Your task to perform on an android device: Toggle the flashlight Image 0: 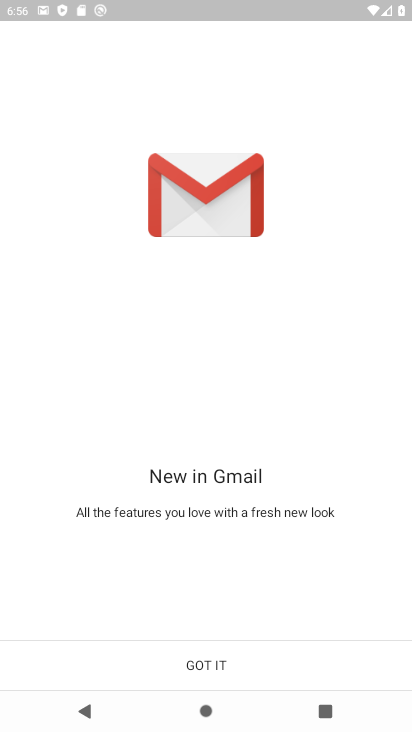
Step 0: press back button
Your task to perform on an android device: Toggle the flashlight Image 1: 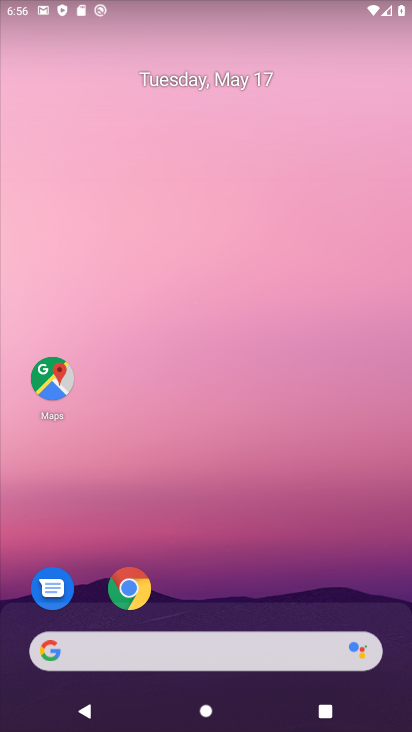
Step 1: drag from (256, 615) to (184, 274)
Your task to perform on an android device: Toggle the flashlight Image 2: 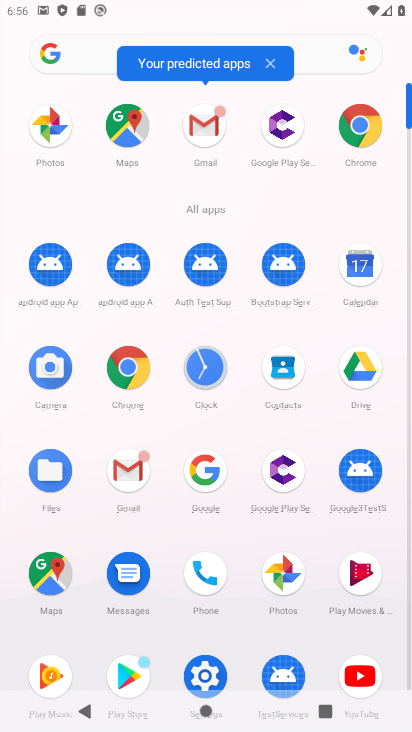
Step 2: drag from (246, 635) to (243, 434)
Your task to perform on an android device: Toggle the flashlight Image 3: 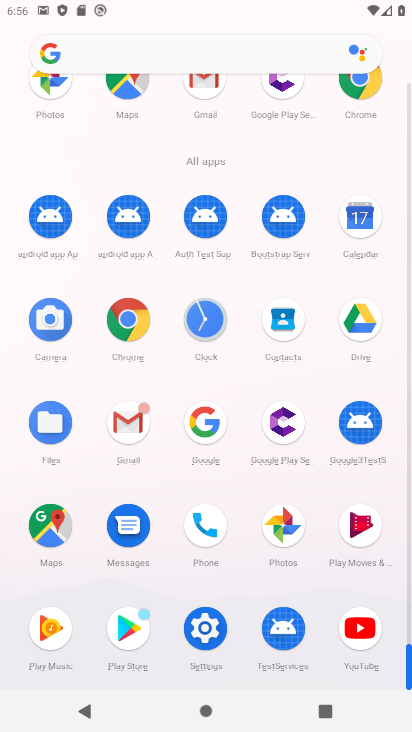
Step 3: click (208, 626)
Your task to perform on an android device: Toggle the flashlight Image 4: 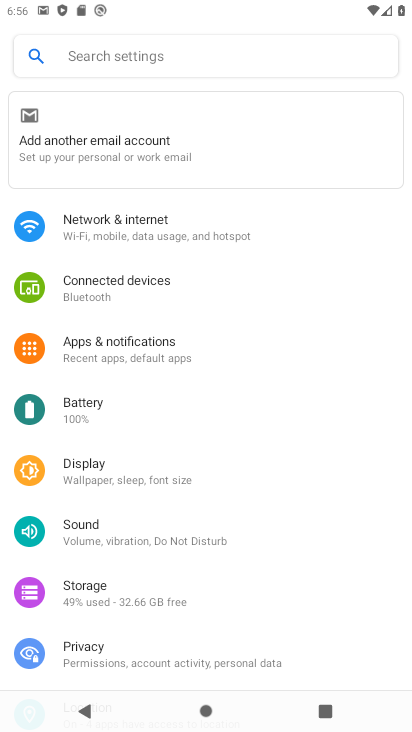
Step 4: drag from (111, 447) to (138, 385)
Your task to perform on an android device: Toggle the flashlight Image 5: 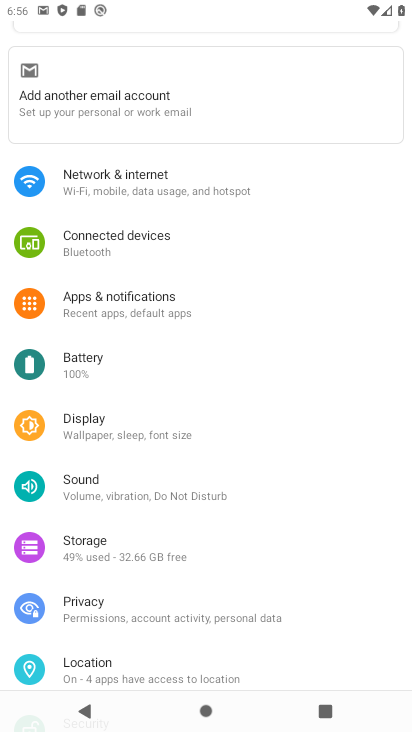
Step 5: drag from (103, 512) to (131, 442)
Your task to perform on an android device: Toggle the flashlight Image 6: 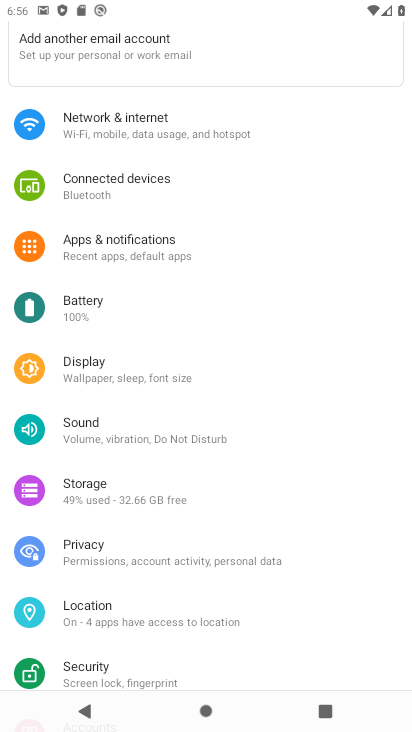
Step 6: click (115, 374)
Your task to perform on an android device: Toggle the flashlight Image 7: 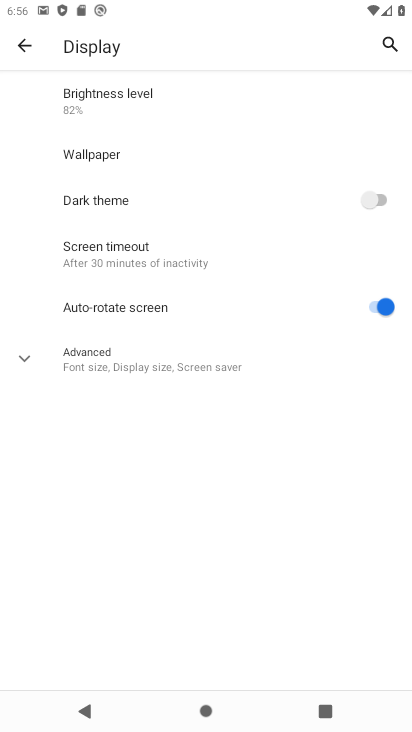
Step 7: click (135, 260)
Your task to perform on an android device: Toggle the flashlight Image 8: 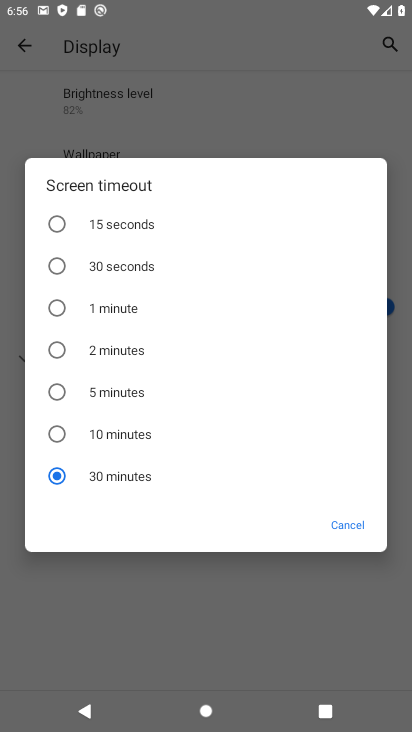
Step 8: click (341, 527)
Your task to perform on an android device: Toggle the flashlight Image 9: 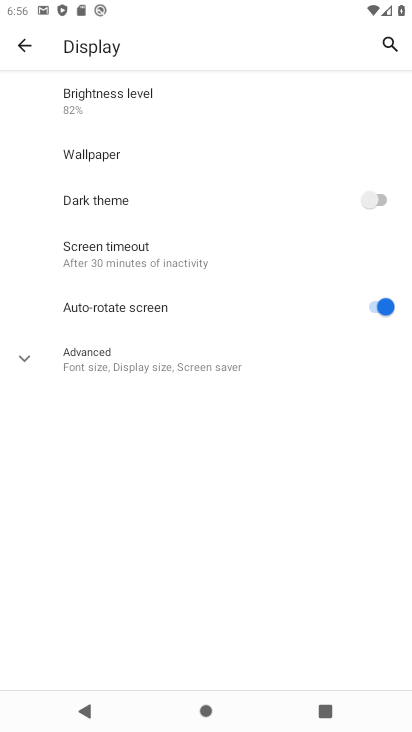
Step 9: click (128, 365)
Your task to perform on an android device: Toggle the flashlight Image 10: 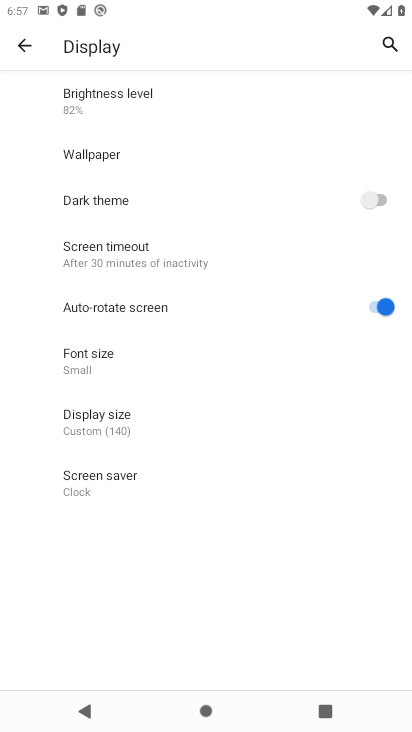
Step 10: task complete